Your task to perform on an android device: Search for pizza restaurants on Maps Image 0: 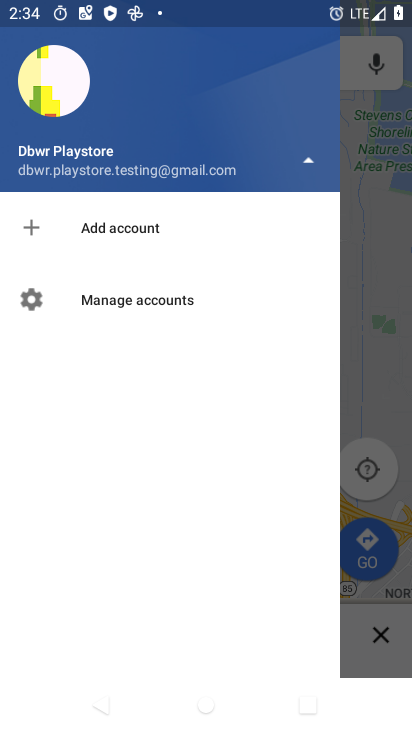
Step 0: press home button
Your task to perform on an android device: Search for pizza restaurants on Maps Image 1: 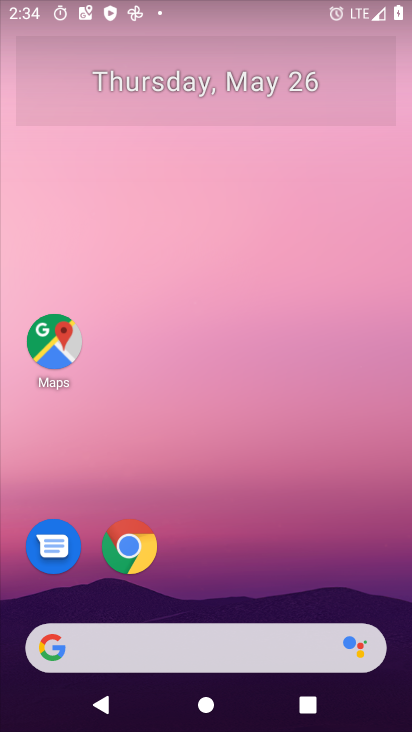
Step 1: click (41, 340)
Your task to perform on an android device: Search for pizza restaurants on Maps Image 2: 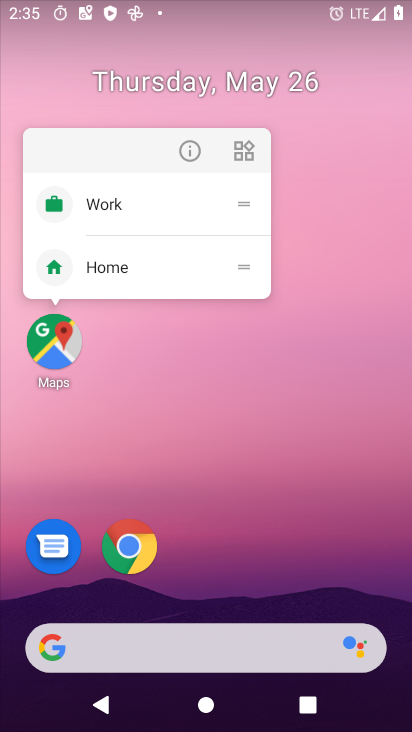
Step 2: click (53, 342)
Your task to perform on an android device: Search for pizza restaurants on Maps Image 3: 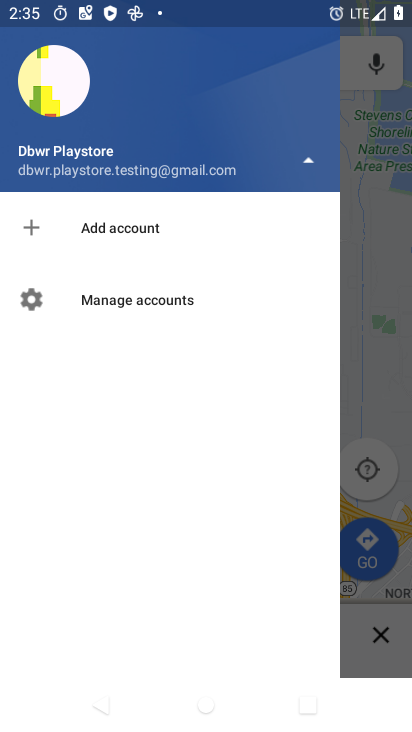
Step 3: click (372, 251)
Your task to perform on an android device: Search for pizza restaurants on Maps Image 4: 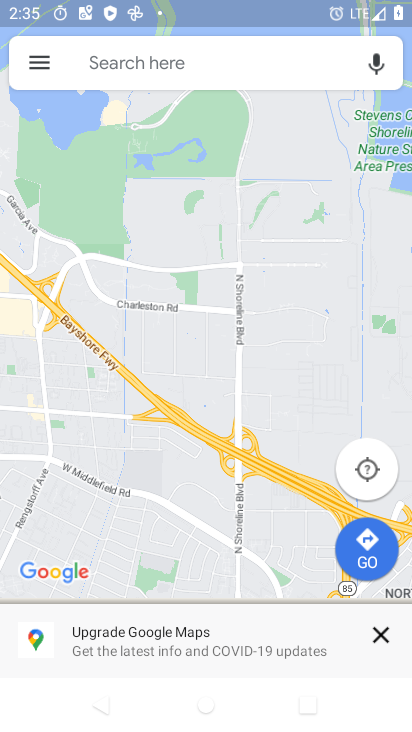
Step 4: click (191, 57)
Your task to perform on an android device: Search for pizza restaurants on Maps Image 5: 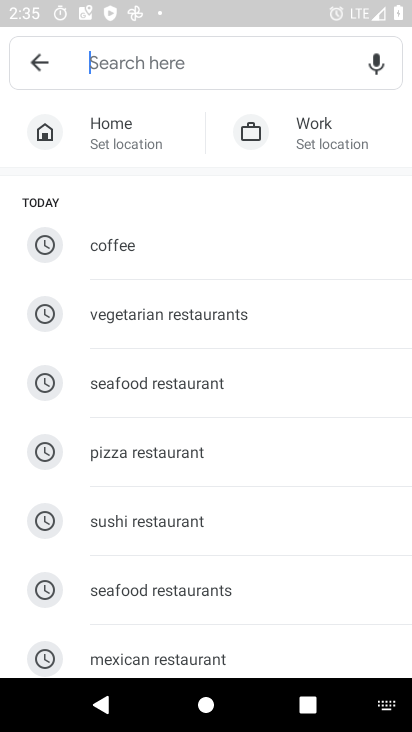
Step 5: click (154, 449)
Your task to perform on an android device: Search for pizza restaurants on Maps Image 6: 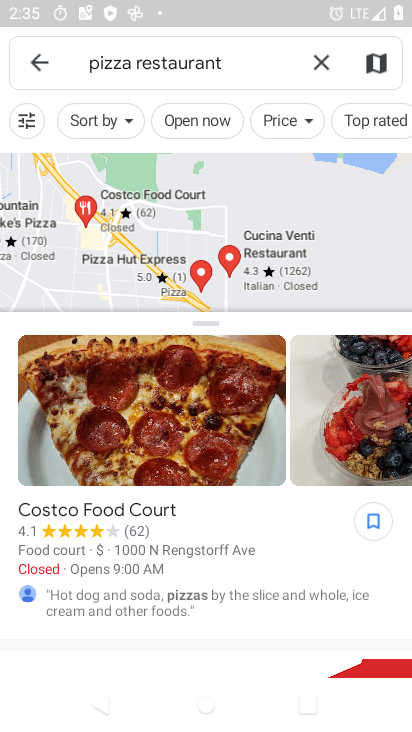
Step 6: task complete